Your task to perform on an android device: Open accessibility settings Image 0: 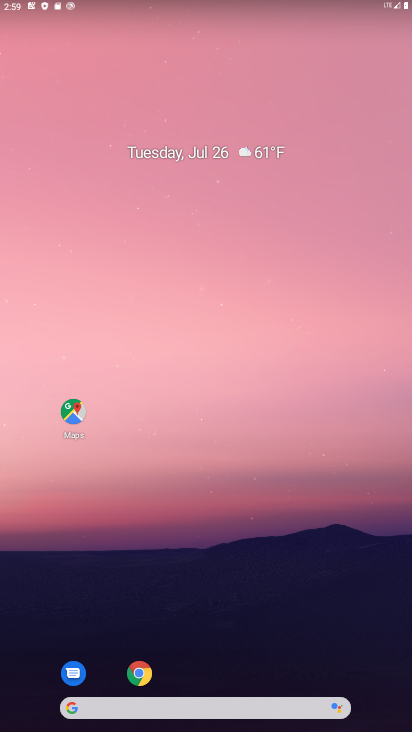
Step 0: drag from (172, 639) to (217, 110)
Your task to perform on an android device: Open accessibility settings Image 1: 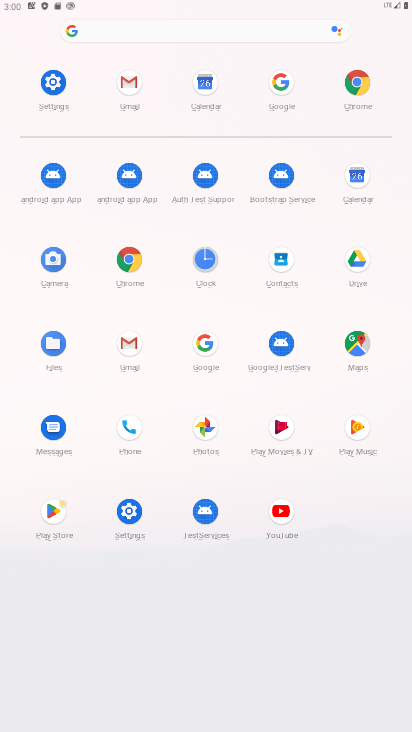
Step 1: click (123, 512)
Your task to perform on an android device: Open accessibility settings Image 2: 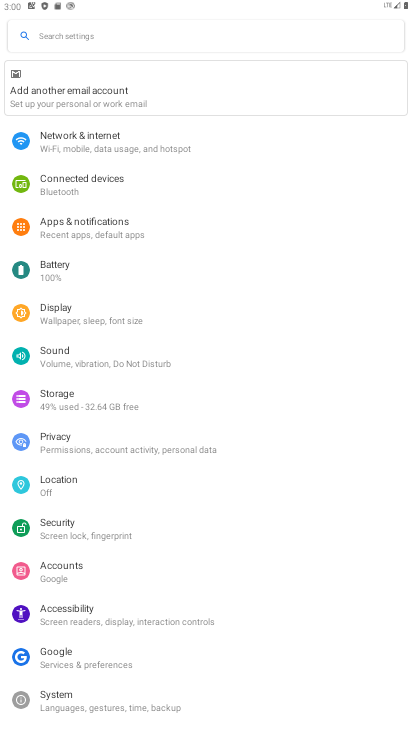
Step 2: click (116, 617)
Your task to perform on an android device: Open accessibility settings Image 3: 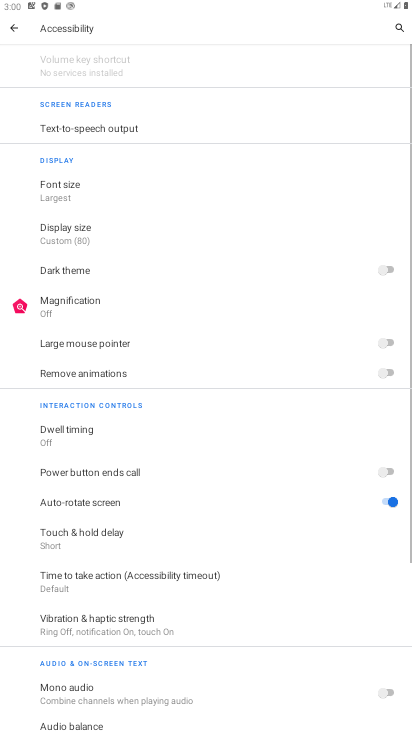
Step 3: task complete